Your task to perform on an android device: change notifications settings Image 0: 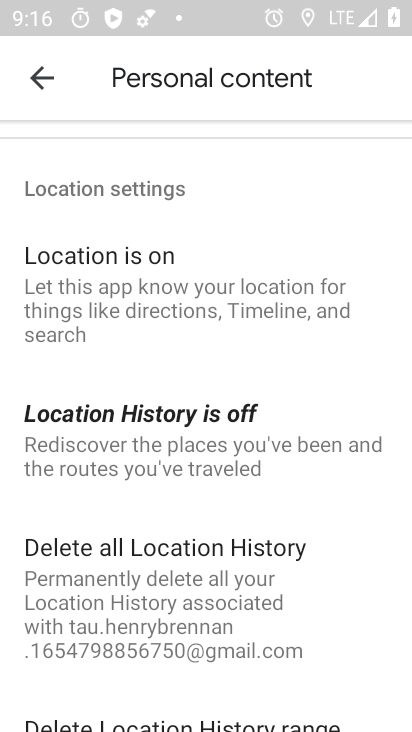
Step 0: press home button
Your task to perform on an android device: change notifications settings Image 1: 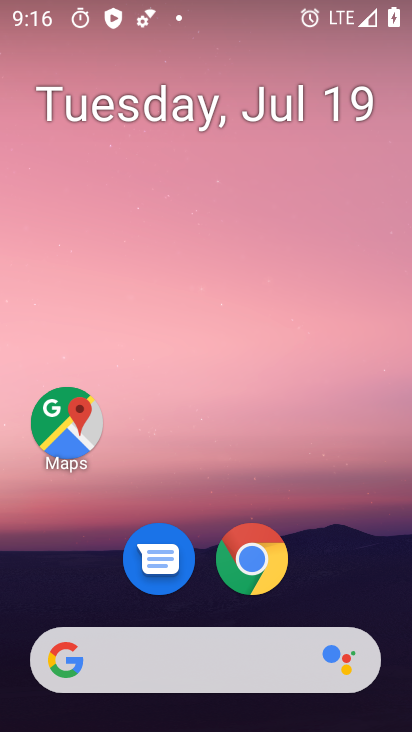
Step 1: drag from (366, 567) to (321, 149)
Your task to perform on an android device: change notifications settings Image 2: 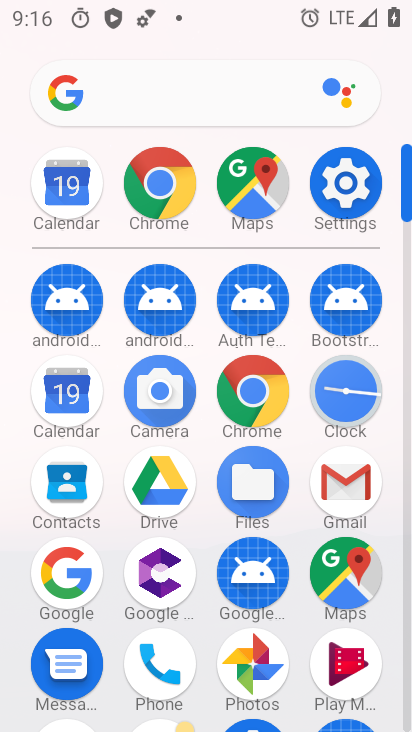
Step 2: click (363, 173)
Your task to perform on an android device: change notifications settings Image 3: 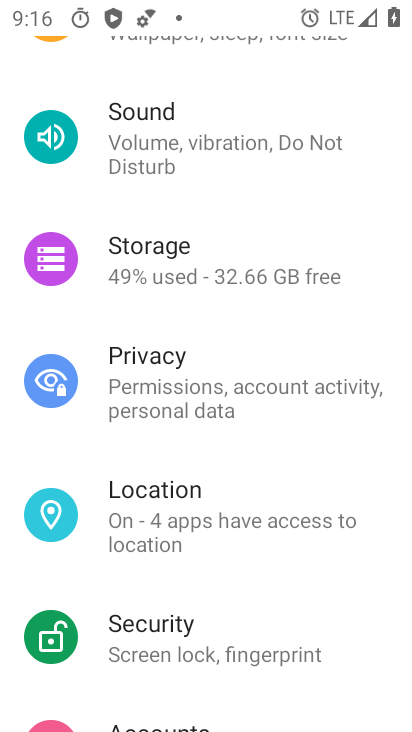
Step 3: drag from (345, 151) to (283, 608)
Your task to perform on an android device: change notifications settings Image 4: 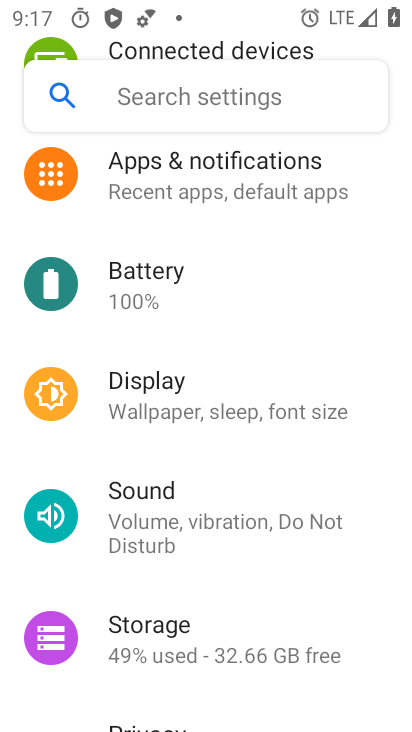
Step 4: click (292, 184)
Your task to perform on an android device: change notifications settings Image 5: 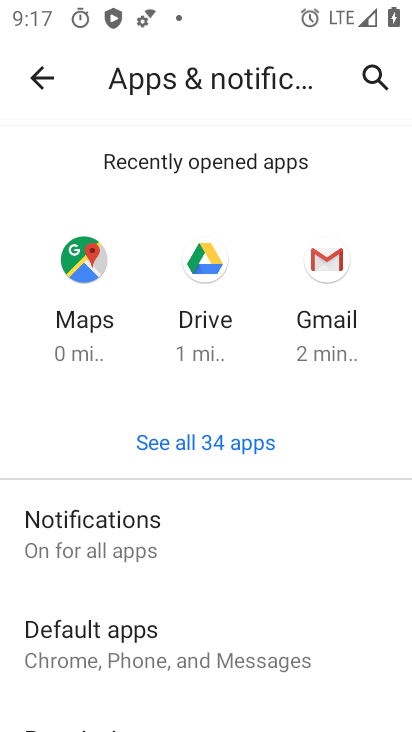
Step 5: task complete